Your task to perform on an android device: turn off translation in the chrome app Image 0: 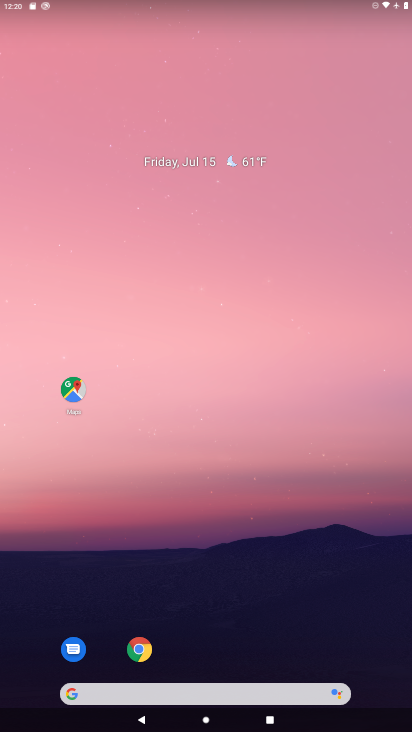
Step 0: click (146, 648)
Your task to perform on an android device: turn off translation in the chrome app Image 1: 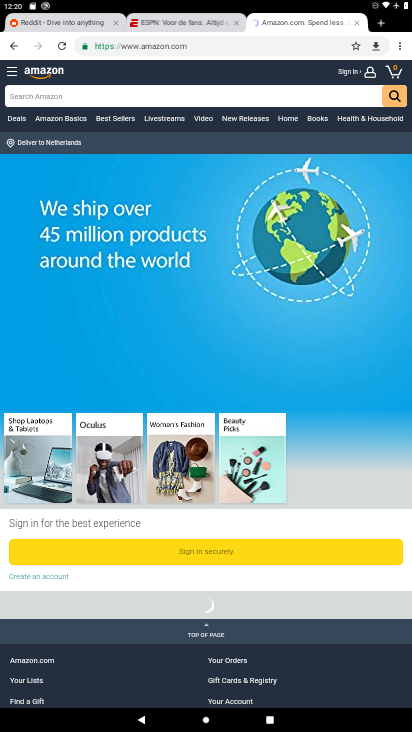
Step 1: click (401, 44)
Your task to perform on an android device: turn off translation in the chrome app Image 2: 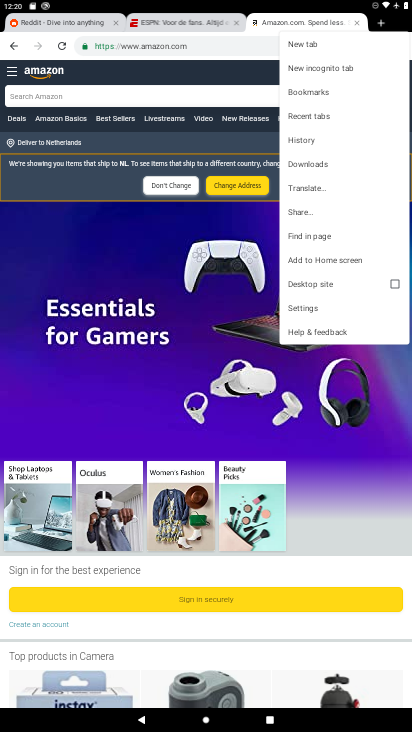
Step 2: click (317, 308)
Your task to perform on an android device: turn off translation in the chrome app Image 3: 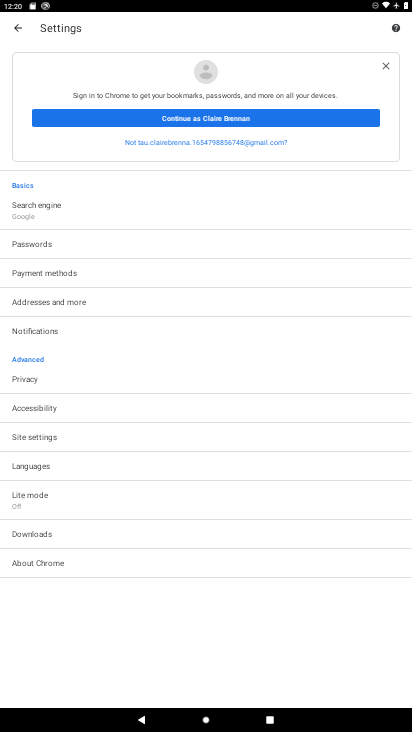
Step 3: click (40, 464)
Your task to perform on an android device: turn off translation in the chrome app Image 4: 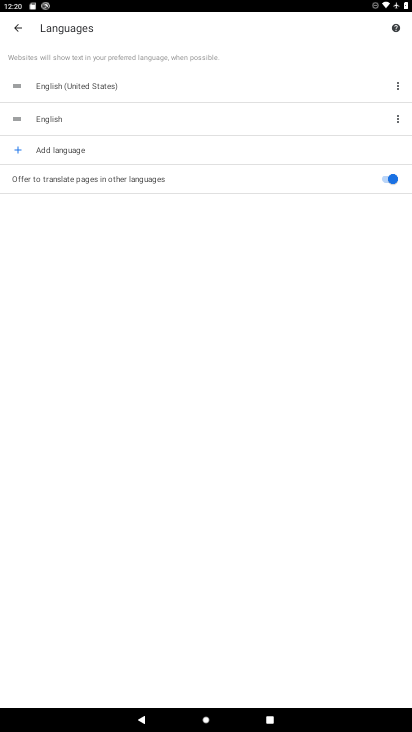
Step 4: click (391, 182)
Your task to perform on an android device: turn off translation in the chrome app Image 5: 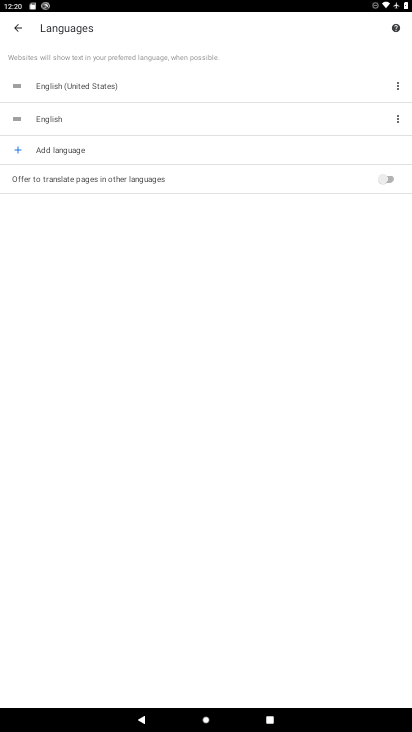
Step 5: task complete